Your task to perform on an android device: Open network settings Image 0: 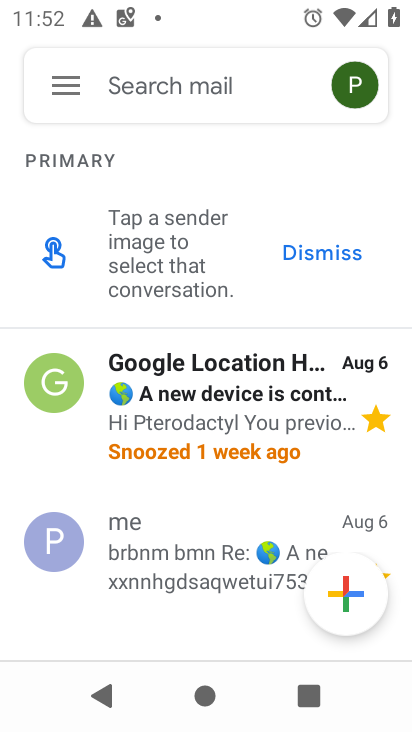
Step 0: press back button
Your task to perform on an android device: Open network settings Image 1: 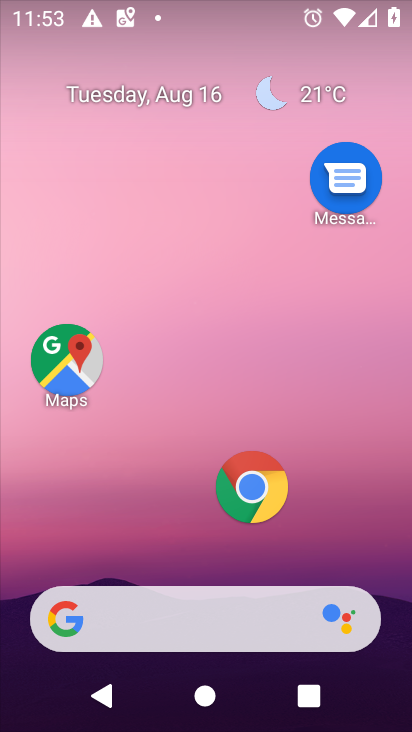
Step 1: drag from (144, 501) to (215, 18)
Your task to perform on an android device: Open network settings Image 2: 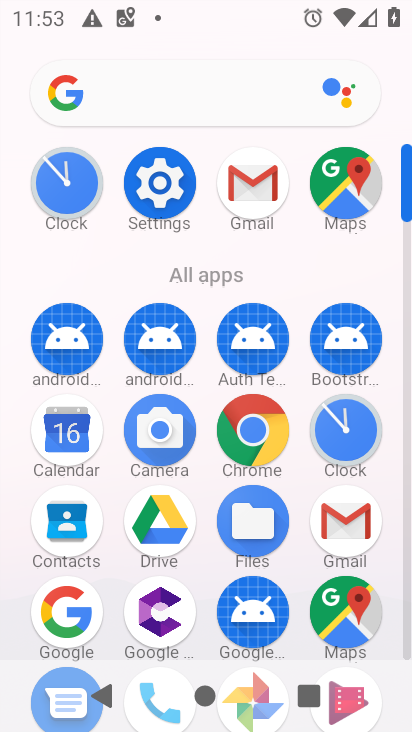
Step 2: click (176, 181)
Your task to perform on an android device: Open network settings Image 3: 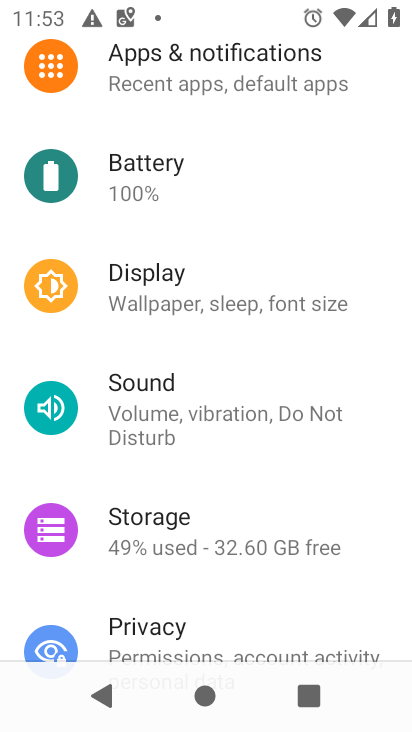
Step 3: drag from (216, 165) to (220, 668)
Your task to perform on an android device: Open network settings Image 4: 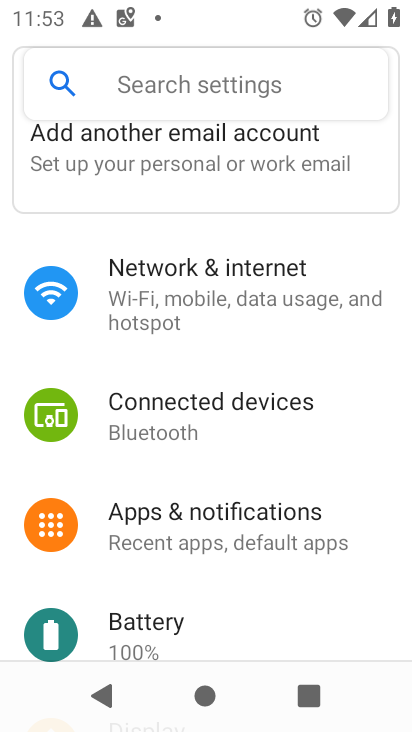
Step 4: click (144, 287)
Your task to perform on an android device: Open network settings Image 5: 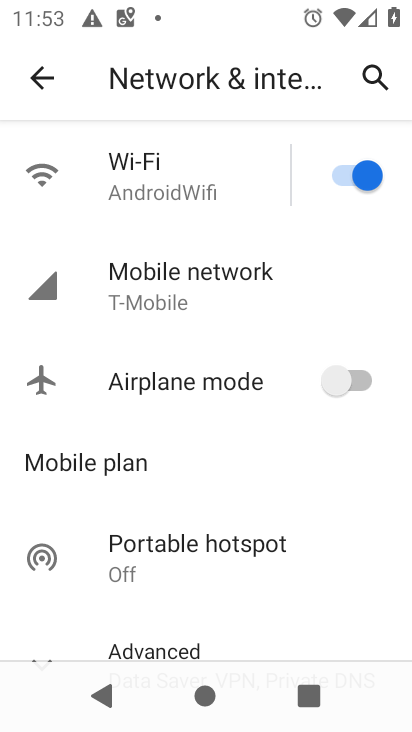
Step 5: task complete